Your task to perform on an android device: Open calendar and show me the third week of next month Image 0: 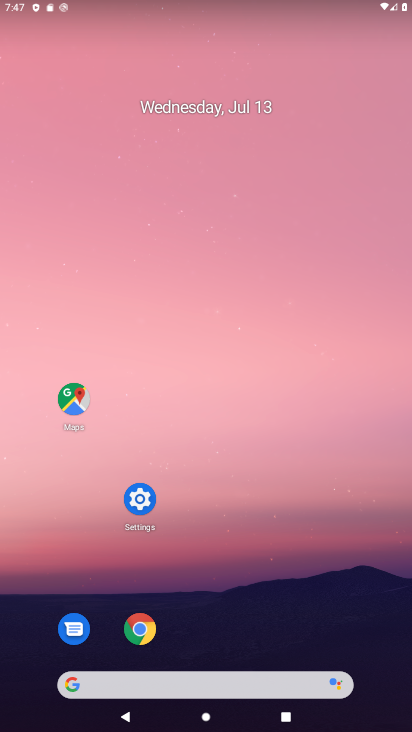
Step 0: drag from (393, 685) to (360, 13)
Your task to perform on an android device: Open calendar and show me the third week of next month Image 1: 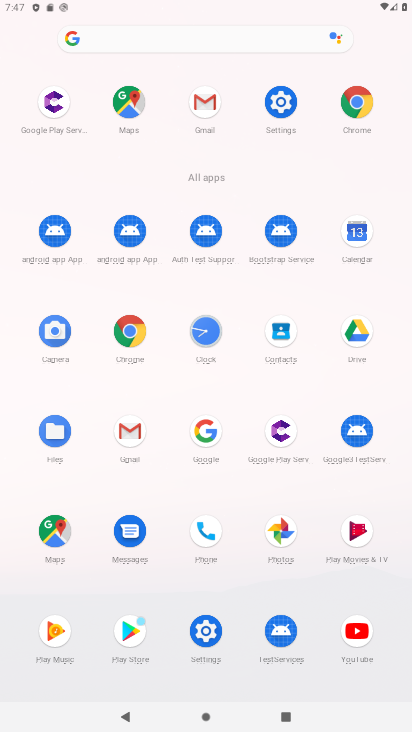
Step 1: click (349, 245)
Your task to perform on an android device: Open calendar and show me the third week of next month Image 2: 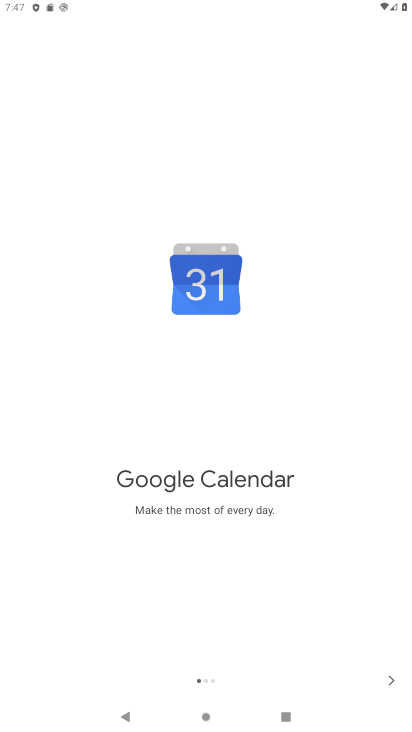
Step 2: click (390, 678)
Your task to perform on an android device: Open calendar and show me the third week of next month Image 3: 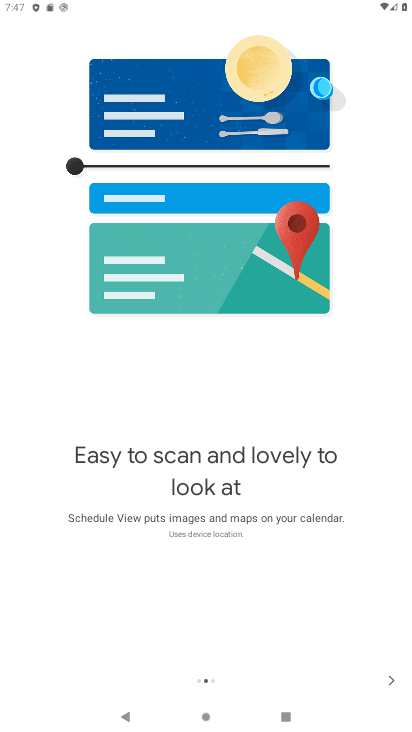
Step 3: click (391, 669)
Your task to perform on an android device: Open calendar and show me the third week of next month Image 4: 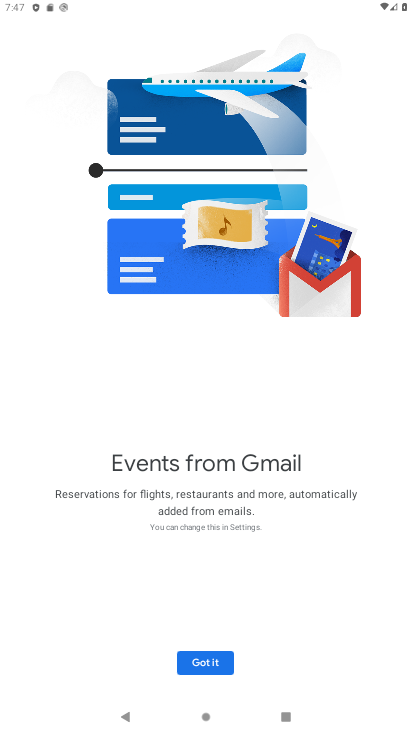
Step 4: click (218, 661)
Your task to perform on an android device: Open calendar and show me the third week of next month Image 5: 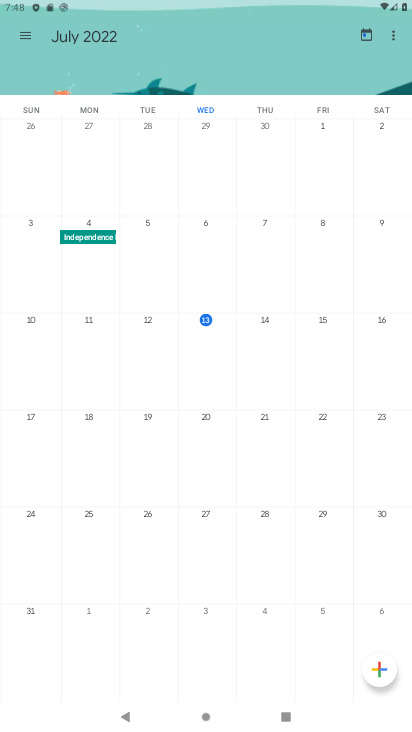
Step 5: drag from (395, 274) to (29, 277)
Your task to perform on an android device: Open calendar and show me the third week of next month Image 6: 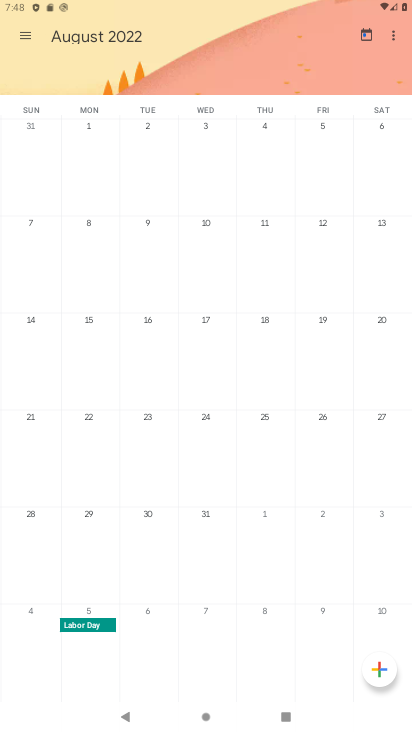
Step 6: click (201, 316)
Your task to perform on an android device: Open calendar and show me the third week of next month Image 7: 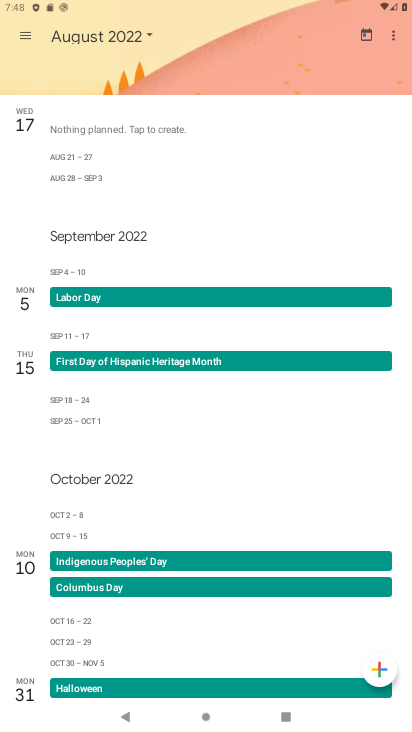
Step 7: task complete